Your task to perform on an android device: open a new tab in the chrome app Image 0: 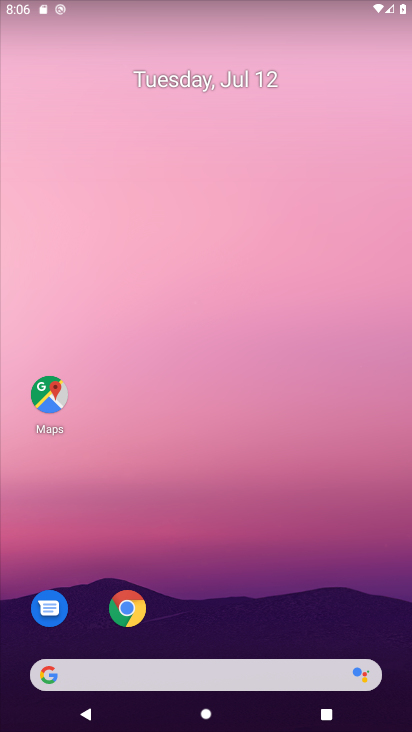
Step 0: click (138, 614)
Your task to perform on an android device: open a new tab in the chrome app Image 1: 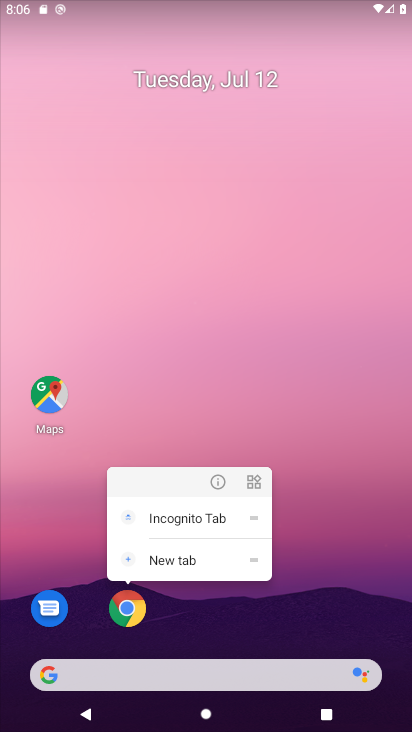
Step 1: click (129, 616)
Your task to perform on an android device: open a new tab in the chrome app Image 2: 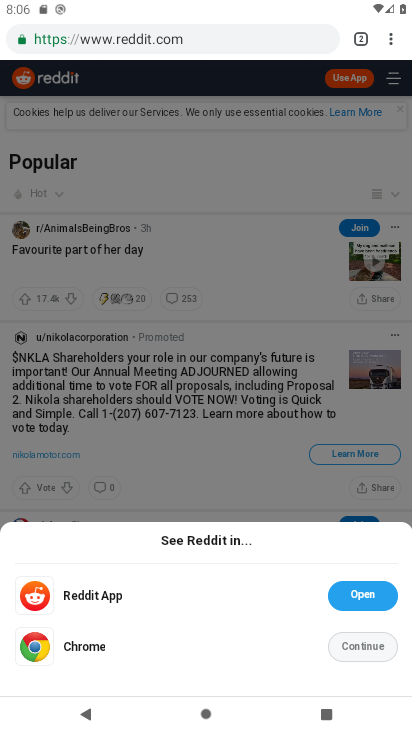
Step 2: click (389, 47)
Your task to perform on an android device: open a new tab in the chrome app Image 3: 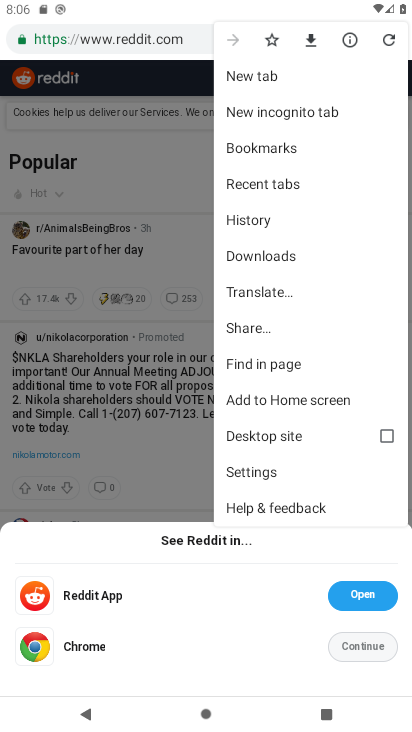
Step 3: click (259, 80)
Your task to perform on an android device: open a new tab in the chrome app Image 4: 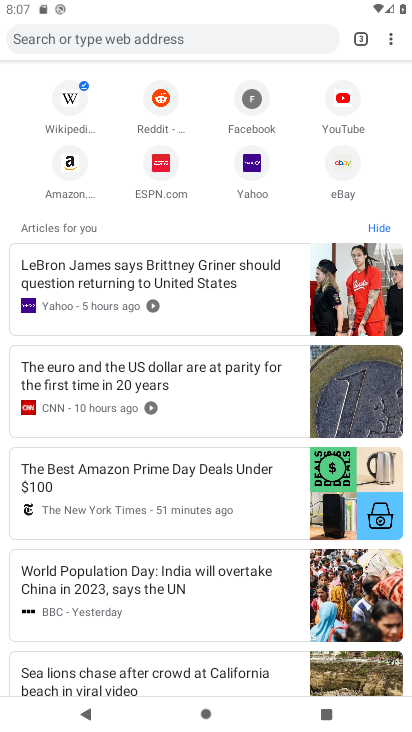
Step 4: task complete